Your task to perform on an android device: Search for energizer triple a on amazon, select the first entry, add it to the cart, then select checkout. Image 0: 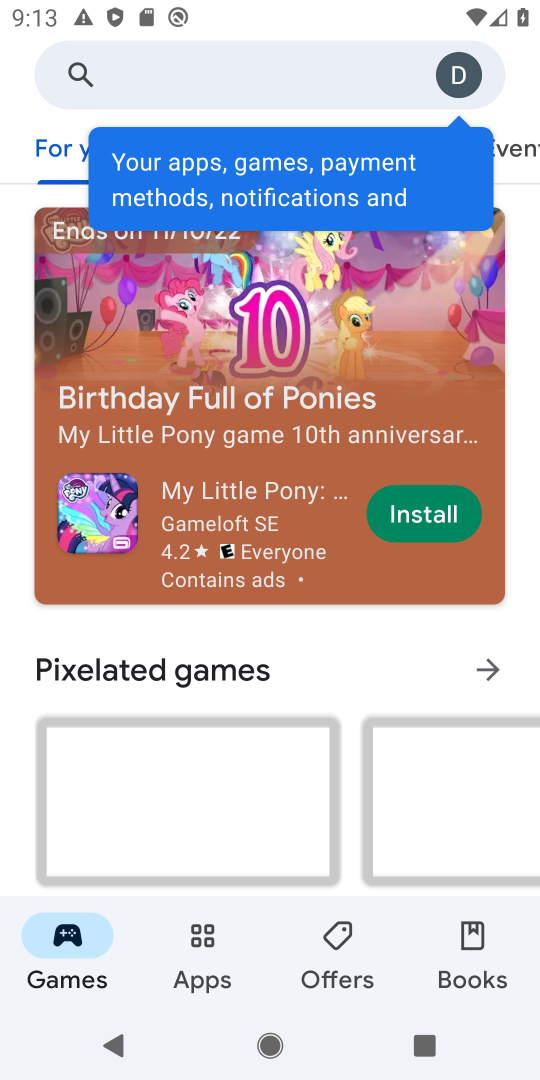
Step 0: click (332, 76)
Your task to perform on an android device: Search for energizer triple a on amazon, select the first entry, add it to the cart, then select checkout. Image 1: 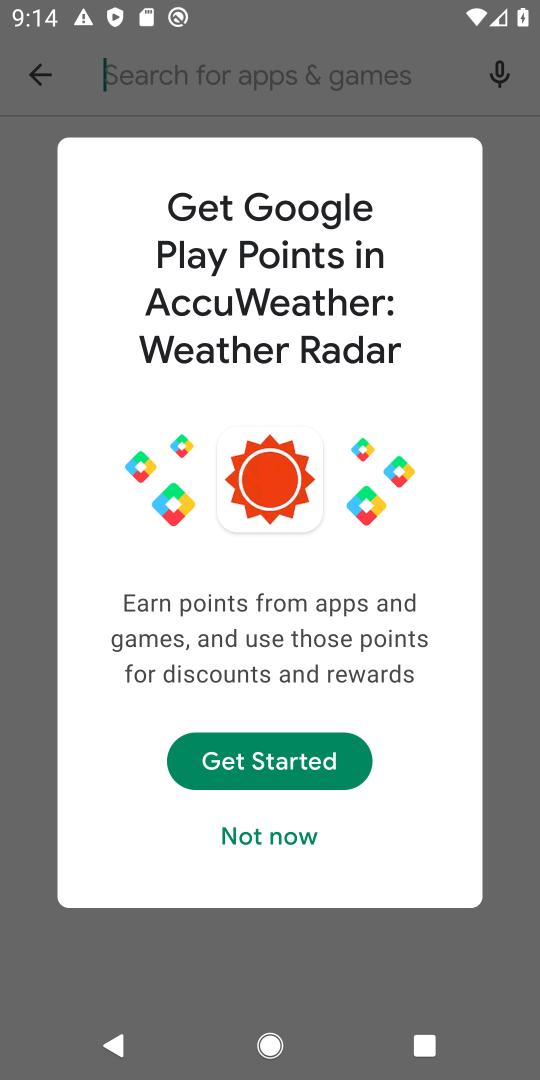
Step 1: click (284, 828)
Your task to perform on an android device: Search for energizer triple a on amazon, select the first entry, add it to the cart, then select checkout. Image 2: 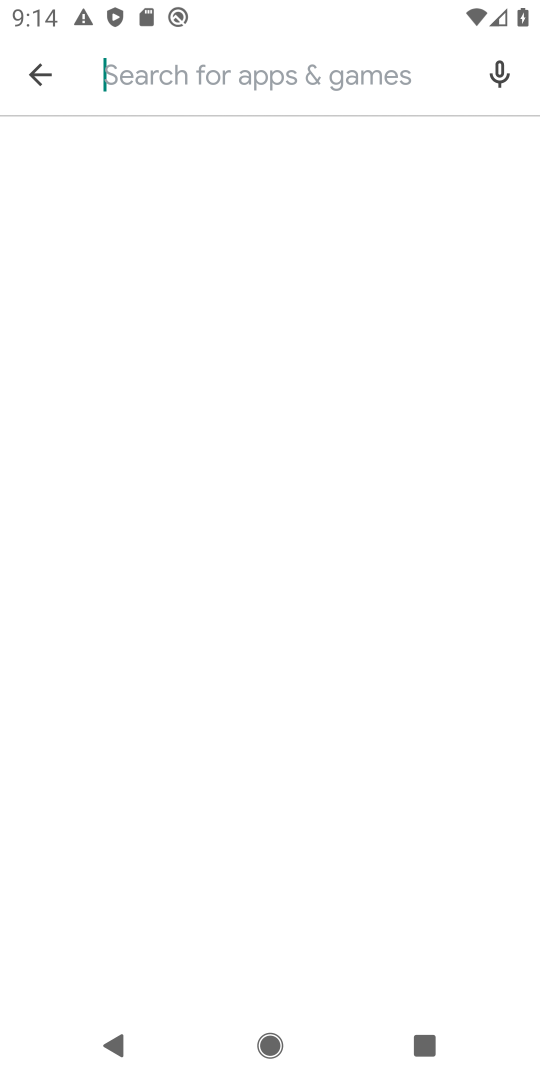
Step 2: click (316, 92)
Your task to perform on an android device: Search for energizer triple a on amazon, select the first entry, add it to the cart, then select checkout. Image 3: 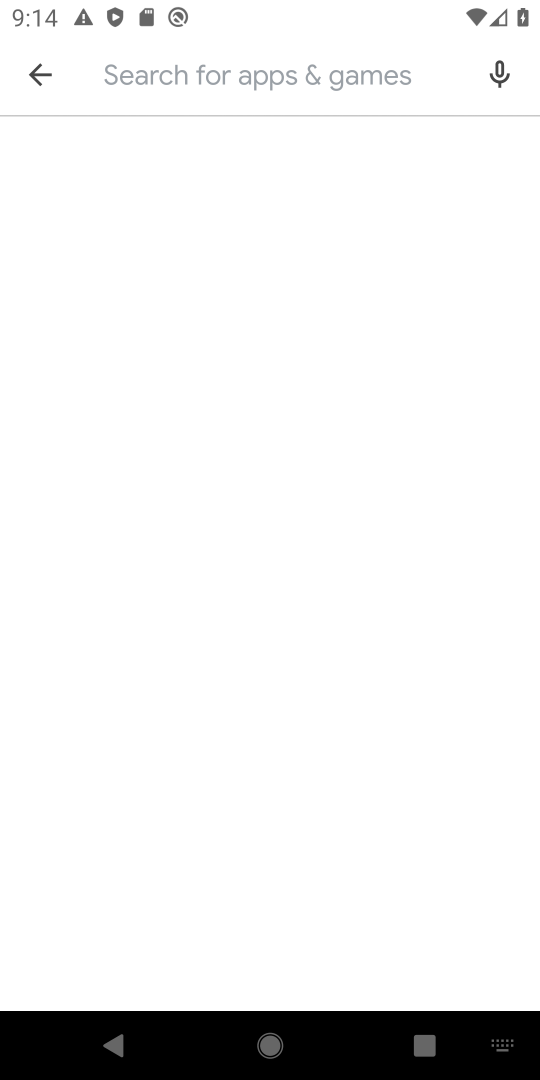
Step 3: type "amazon"
Your task to perform on an android device: Search for energizer triple a on amazon, select the first entry, add it to the cart, then select checkout. Image 4: 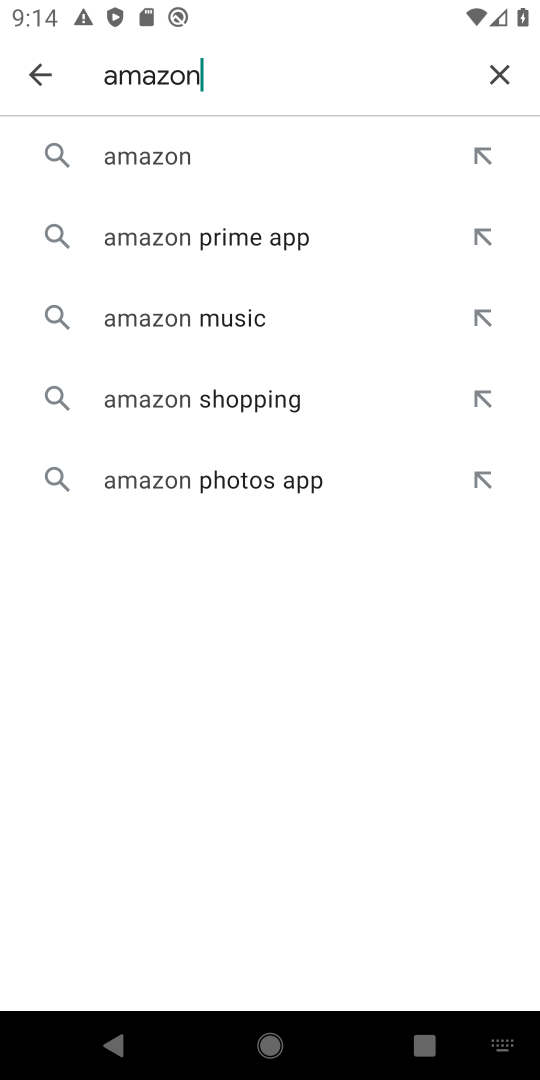
Step 4: click (142, 154)
Your task to perform on an android device: Search for energizer triple a on amazon, select the first entry, add it to the cart, then select checkout. Image 5: 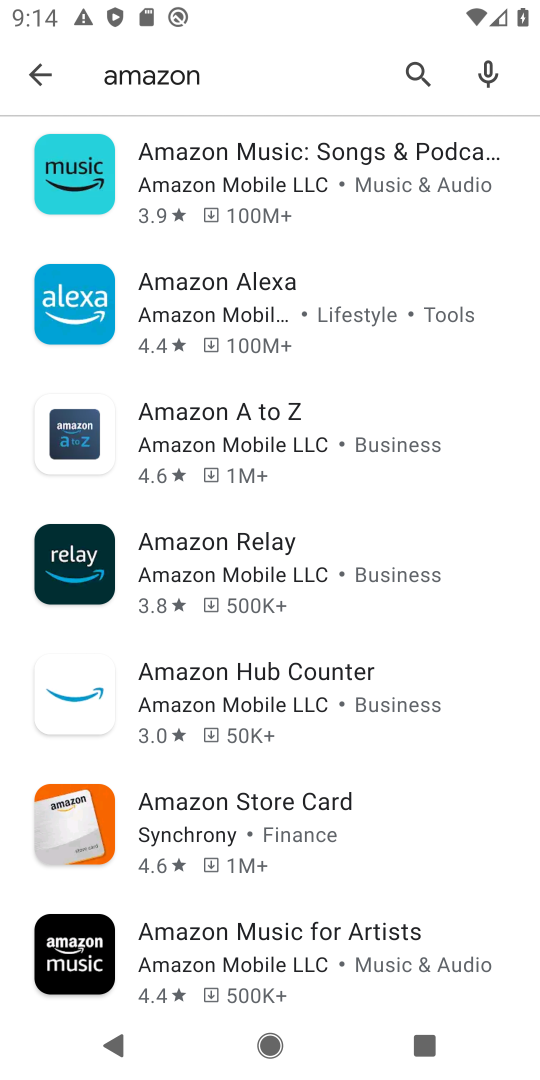
Step 5: press home button
Your task to perform on an android device: Search for energizer triple a on amazon, select the first entry, add it to the cart, then select checkout. Image 6: 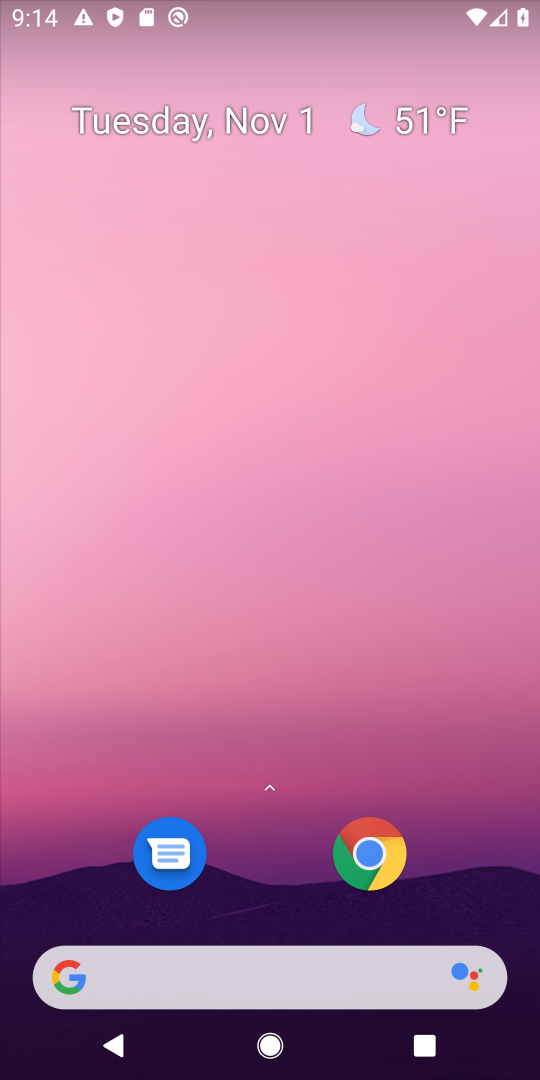
Step 6: click (350, 977)
Your task to perform on an android device: Search for energizer triple a on amazon, select the first entry, add it to the cart, then select checkout. Image 7: 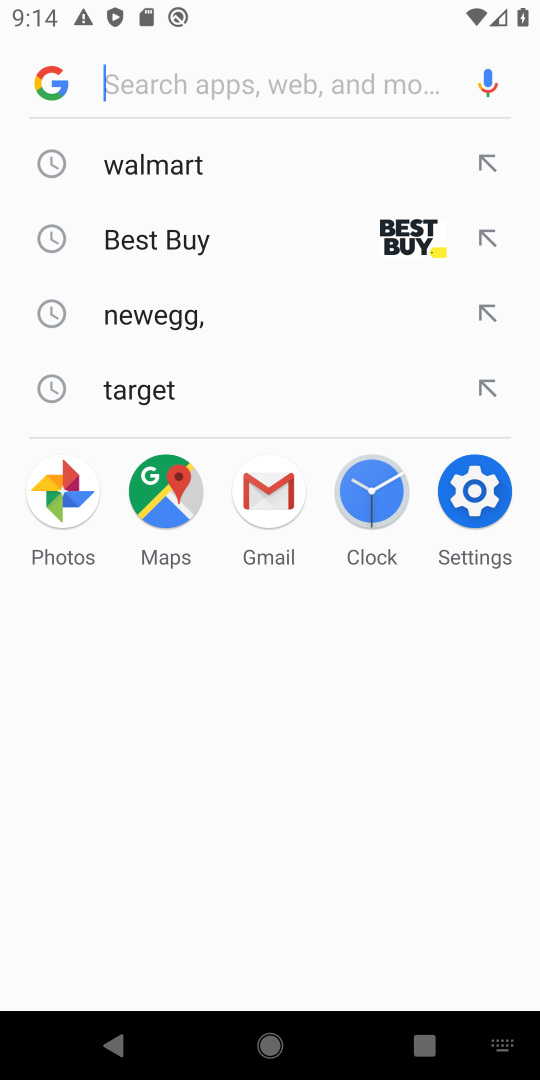
Step 7: type "amazon"
Your task to perform on an android device: Search for energizer triple a on amazon, select the first entry, add it to the cart, then select checkout. Image 8: 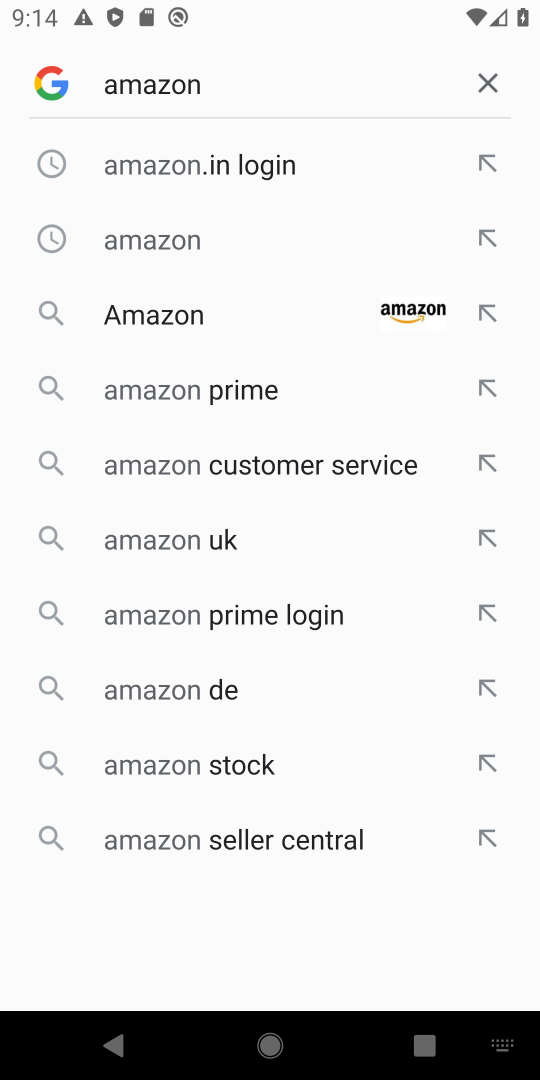
Step 8: click (211, 241)
Your task to perform on an android device: Search for energizer triple a on amazon, select the first entry, add it to the cart, then select checkout. Image 9: 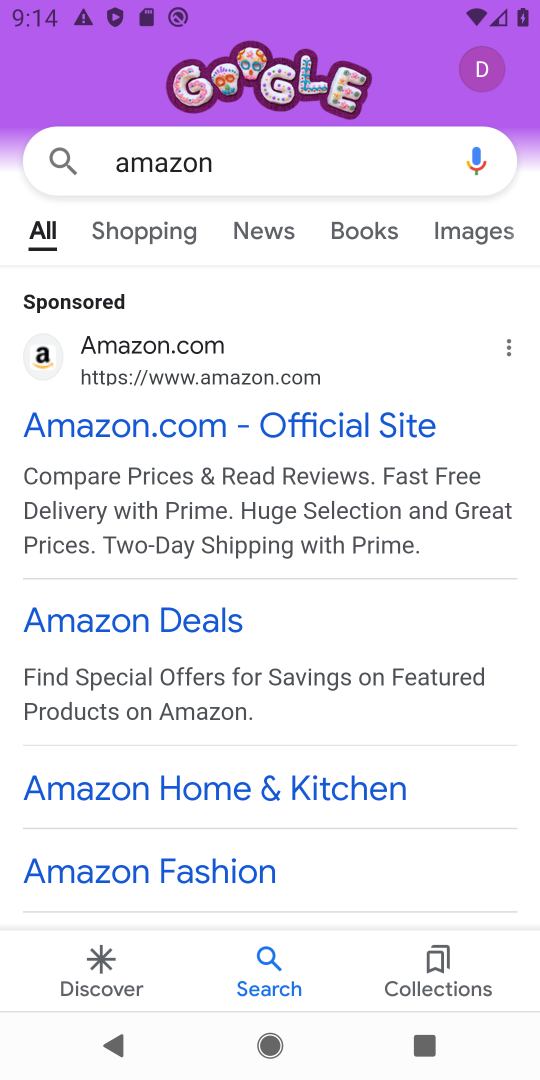
Step 9: click (234, 419)
Your task to perform on an android device: Search for energizer triple a on amazon, select the first entry, add it to the cart, then select checkout. Image 10: 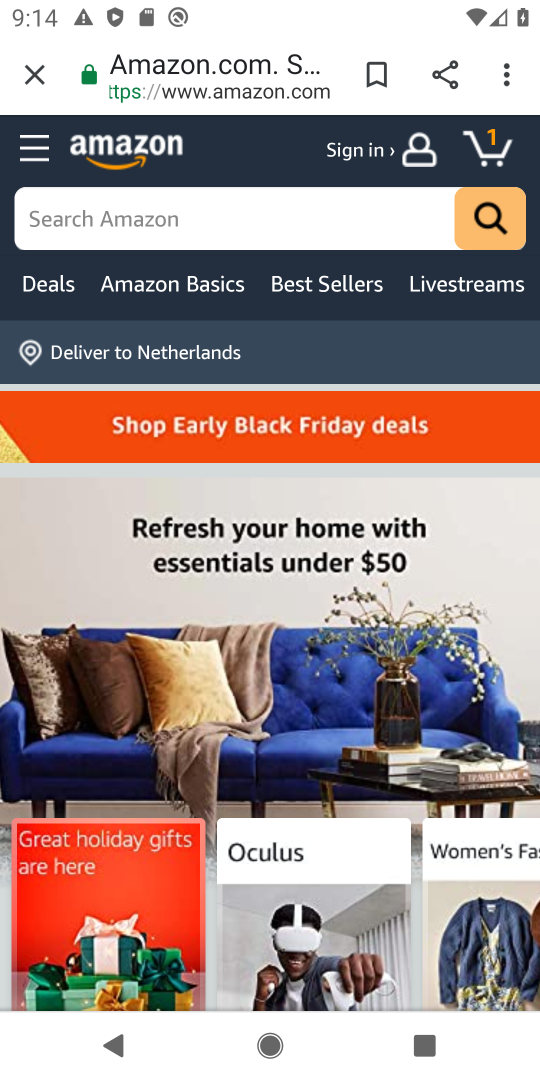
Step 10: click (283, 217)
Your task to perform on an android device: Search for energizer triple a on amazon, select the first entry, add it to the cart, then select checkout. Image 11: 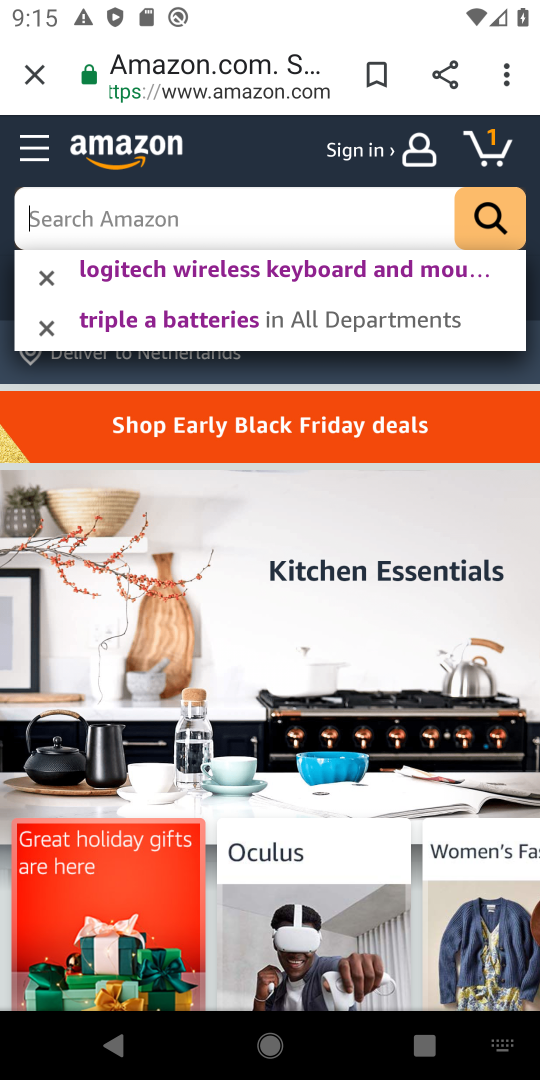
Step 11: type "energizer"
Your task to perform on an android device: Search for energizer triple a on amazon, select the first entry, add it to the cart, then select checkout. Image 12: 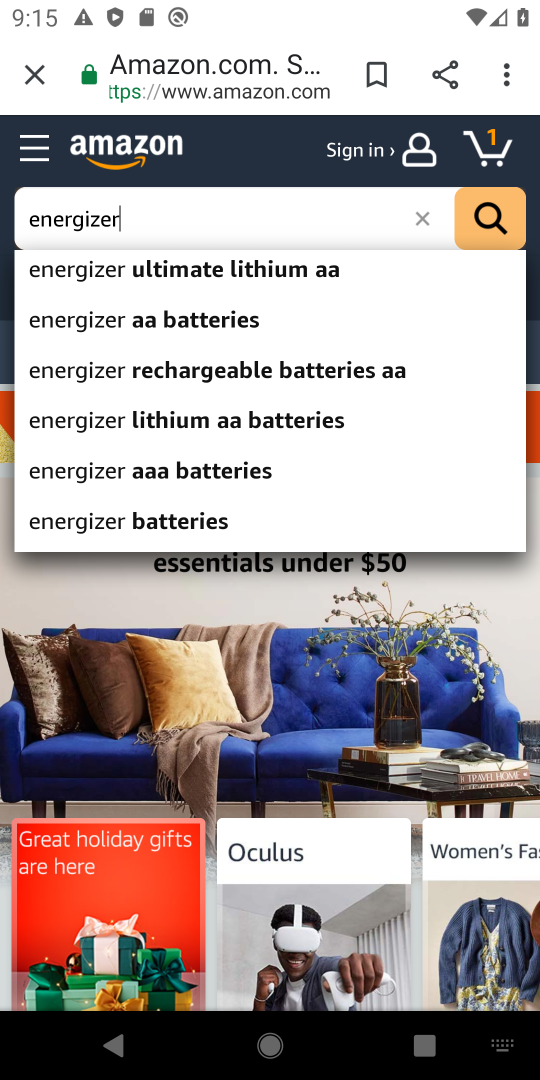
Step 12: click (411, 275)
Your task to perform on an android device: Search for energizer triple a on amazon, select the first entry, add it to the cart, then select checkout. Image 13: 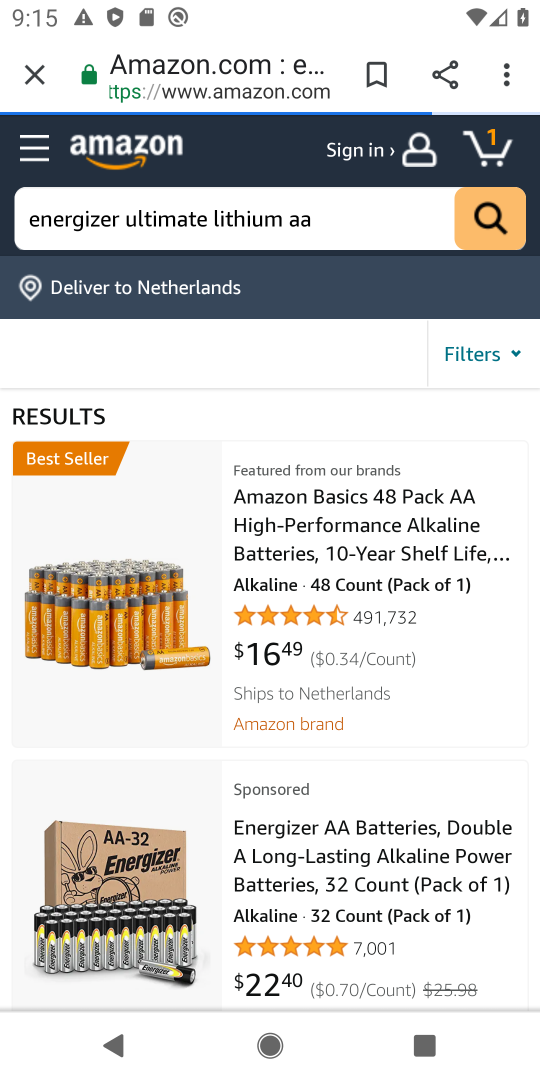
Step 13: click (238, 539)
Your task to perform on an android device: Search for energizer triple a on amazon, select the first entry, add it to the cart, then select checkout. Image 14: 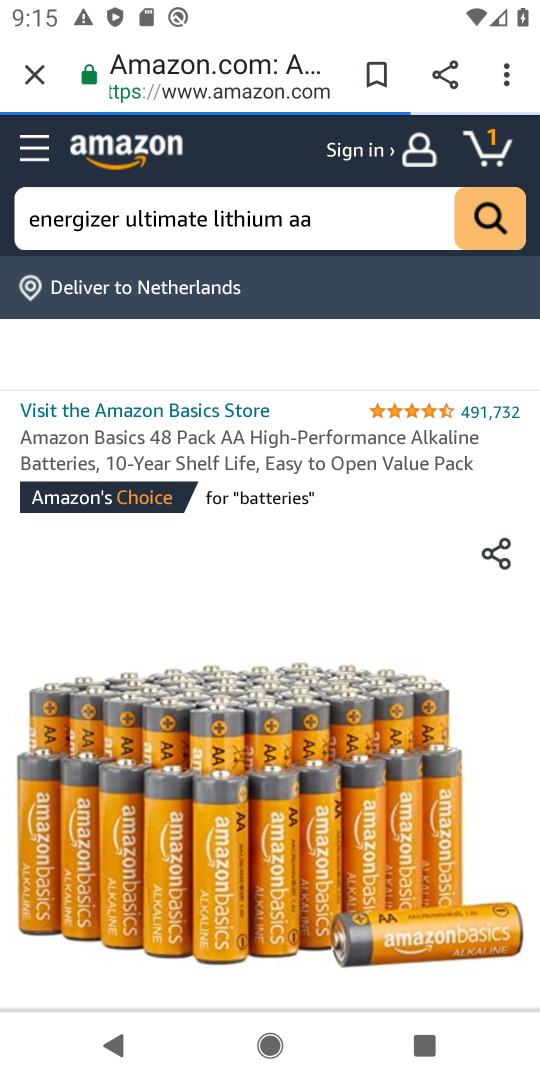
Step 14: drag from (292, 903) to (298, 492)
Your task to perform on an android device: Search for energizer triple a on amazon, select the first entry, add it to the cart, then select checkout. Image 15: 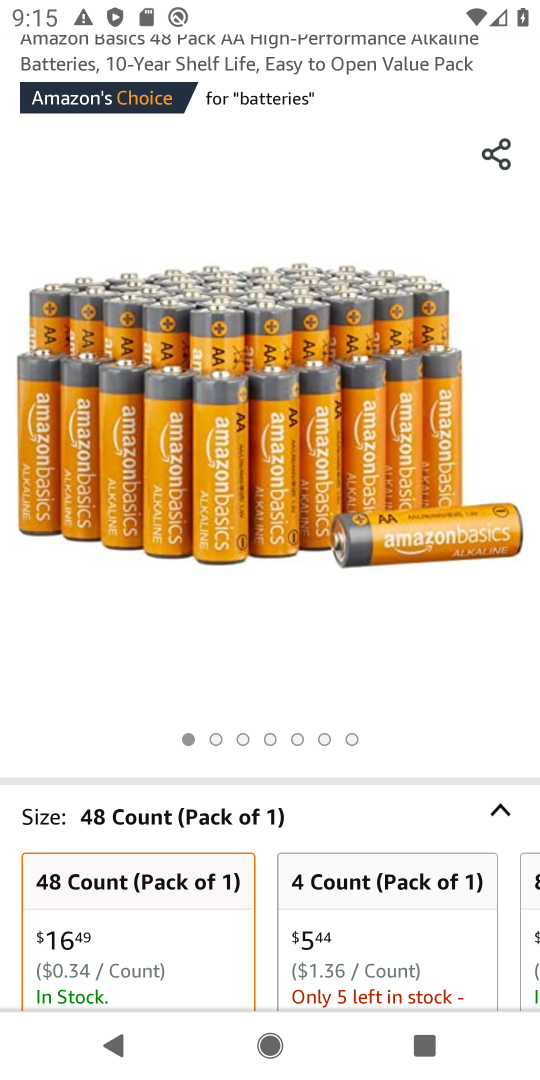
Step 15: drag from (333, 837) to (329, 337)
Your task to perform on an android device: Search for energizer triple a on amazon, select the first entry, add it to the cart, then select checkout. Image 16: 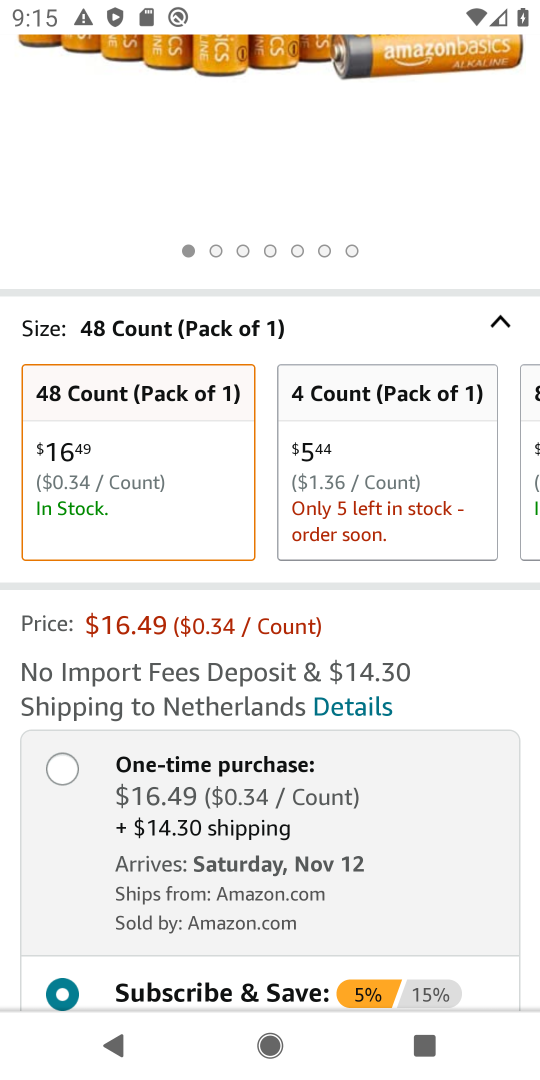
Step 16: drag from (421, 925) to (345, 347)
Your task to perform on an android device: Search for energizer triple a on amazon, select the first entry, add it to the cart, then select checkout. Image 17: 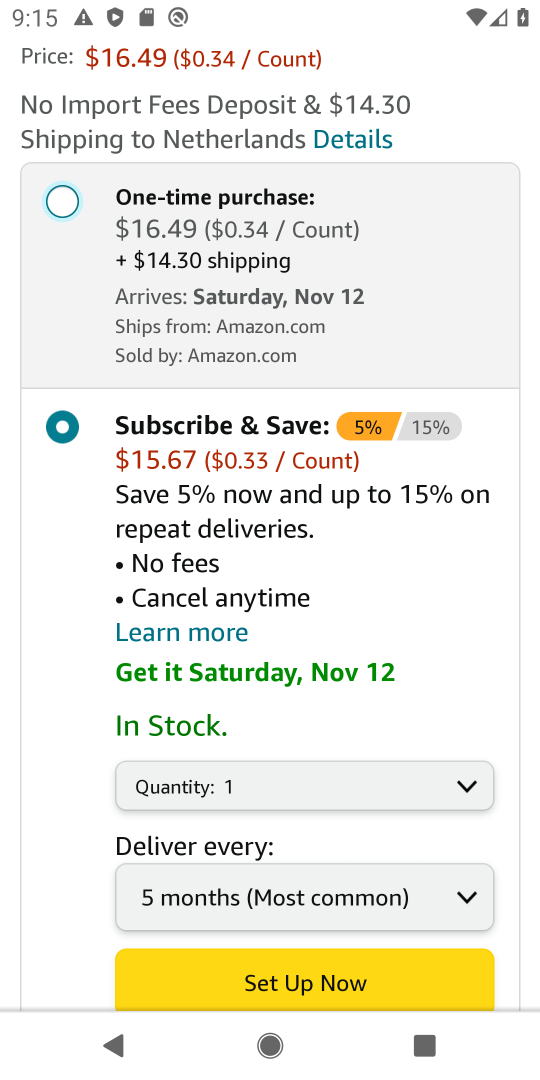
Step 17: drag from (105, 911) to (68, 492)
Your task to perform on an android device: Search for energizer triple a on amazon, select the first entry, add it to the cart, then select checkout. Image 18: 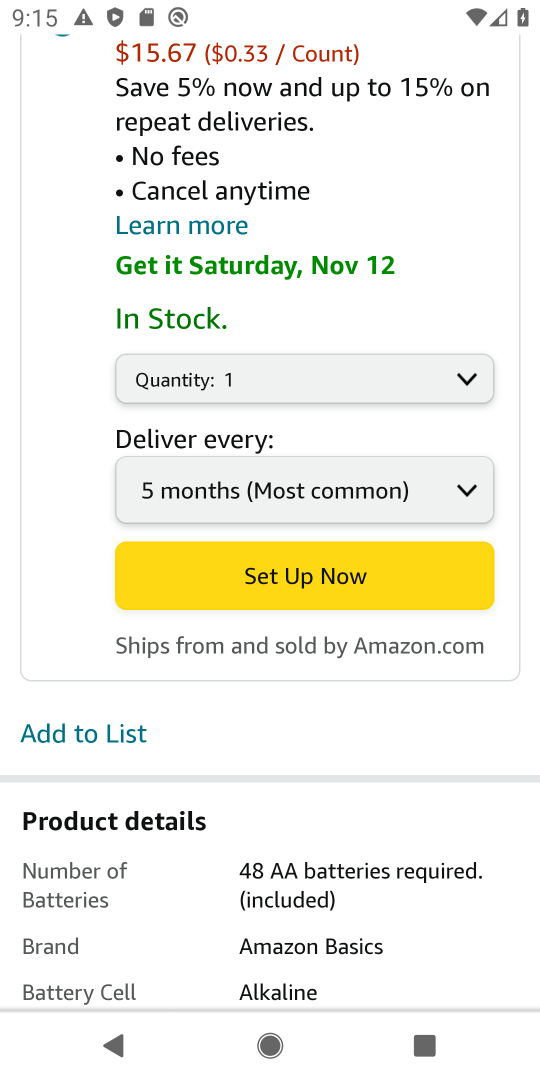
Step 18: click (360, 578)
Your task to perform on an android device: Search for energizer triple a on amazon, select the first entry, add it to the cart, then select checkout. Image 19: 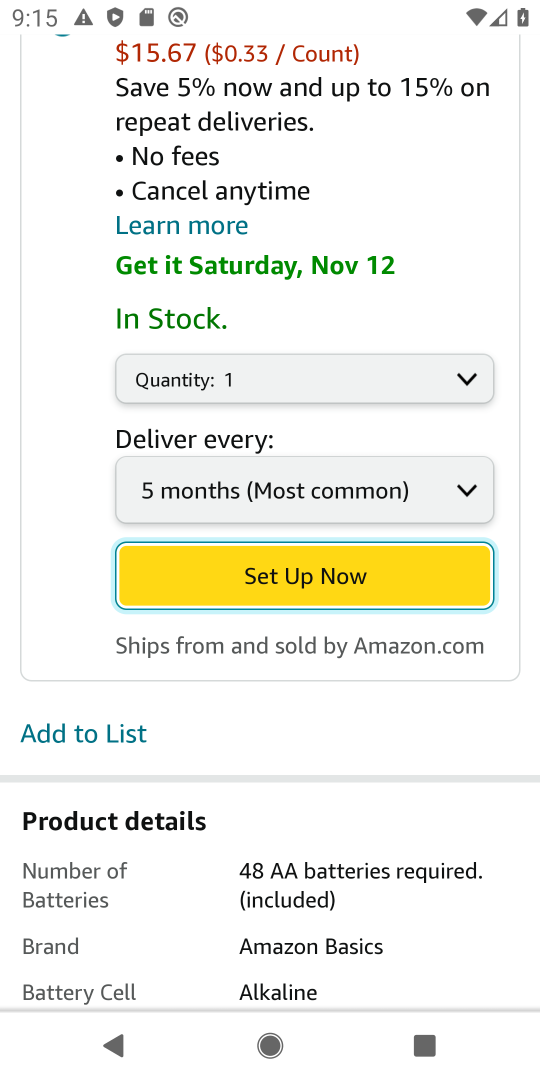
Step 19: click (360, 578)
Your task to perform on an android device: Search for energizer triple a on amazon, select the first entry, add it to the cart, then select checkout. Image 20: 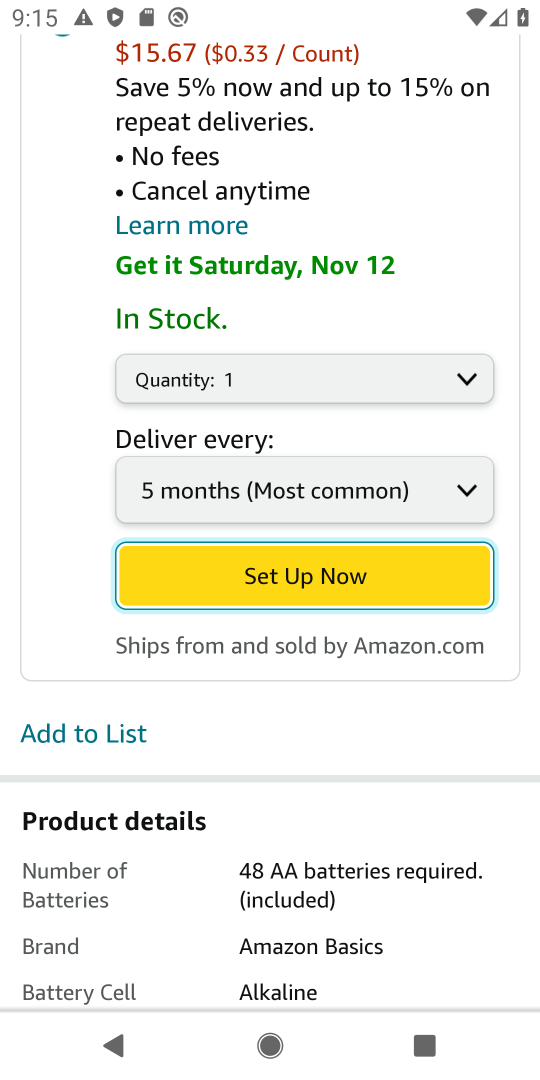
Step 20: task complete